Your task to perform on an android device: change alarm snooze length Image 0: 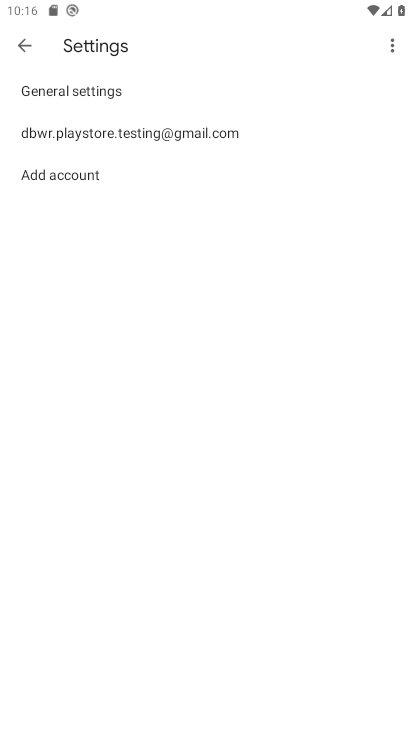
Step 0: drag from (206, 666) to (205, 495)
Your task to perform on an android device: change alarm snooze length Image 1: 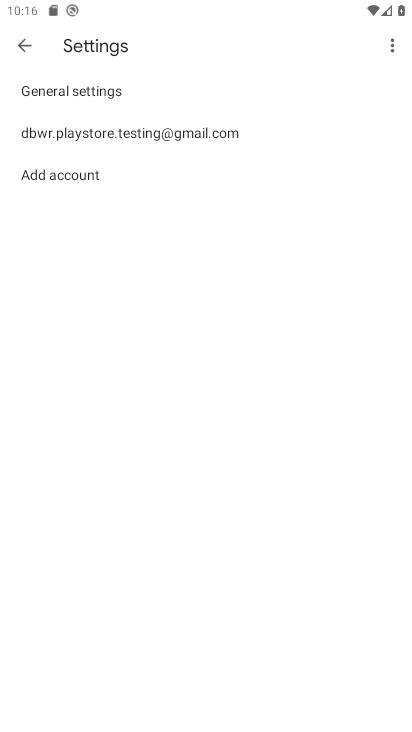
Step 1: press home button
Your task to perform on an android device: change alarm snooze length Image 2: 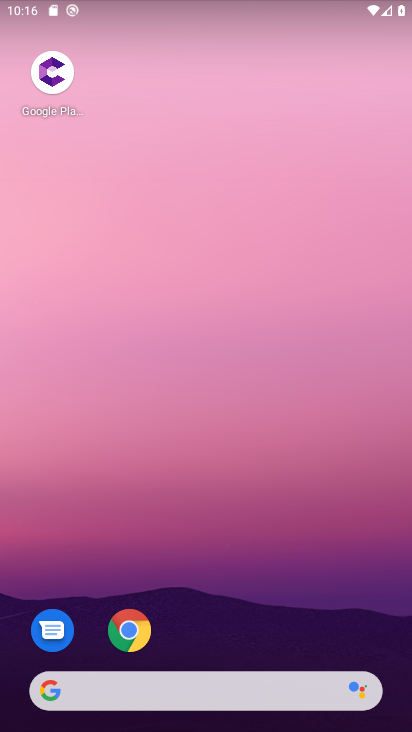
Step 2: drag from (222, 665) to (156, 57)
Your task to perform on an android device: change alarm snooze length Image 3: 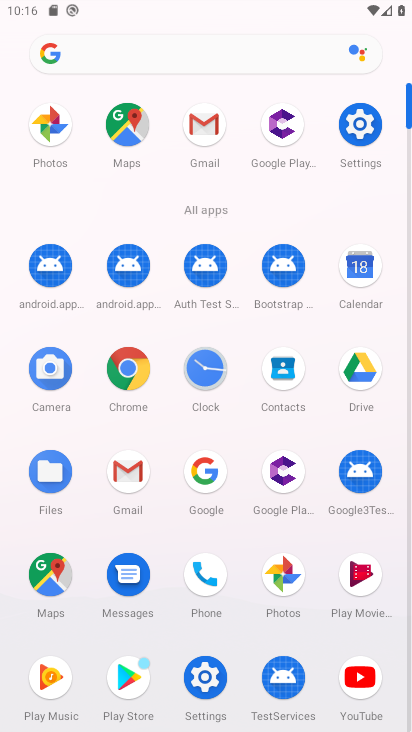
Step 3: click (192, 368)
Your task to perform on an android device: change alarm snooze length Image 4: 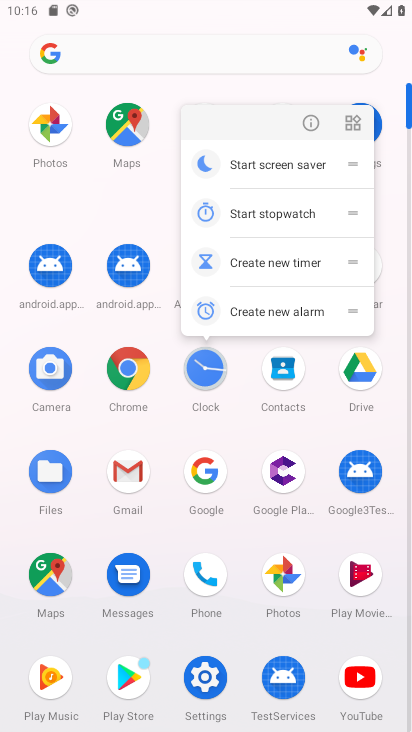
Step 4: click (216, 371)
Your task to perform on an android device: change alarm snooze length Image 5: 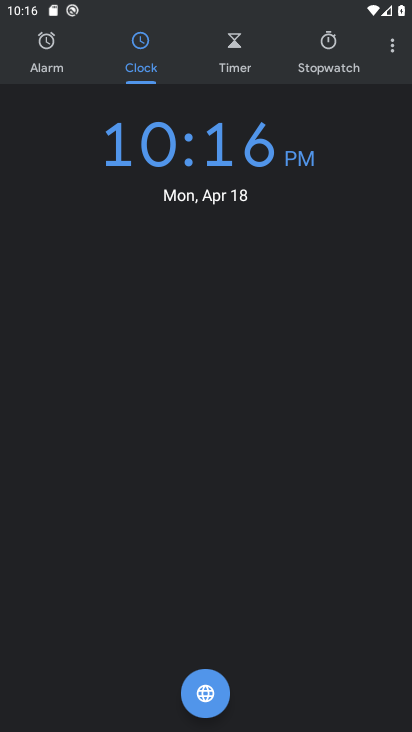
Step 5: click (390, 55)
Your task to perform on an android device: change alarm snooze length Image 6: 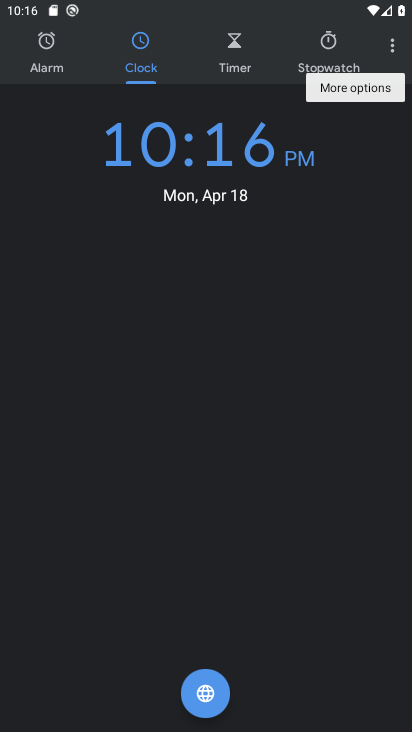
Step 6: click (391, 55)
Your task to perform on an android device: change alarm snooze length Image 7: 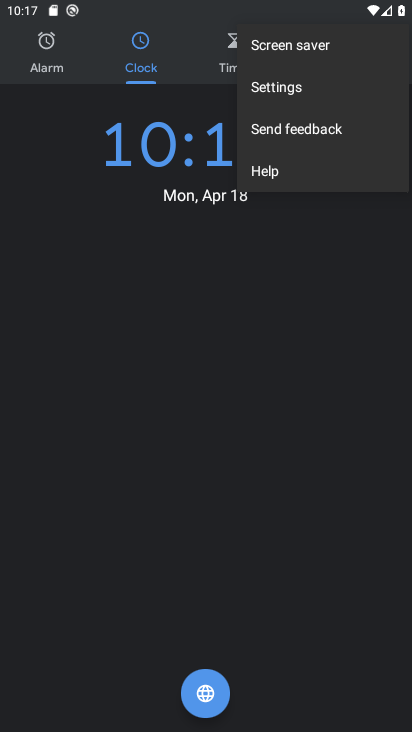
Step 7: click (288, 80)
Your task to perform on an android device: change alarm snooze length Image 8: 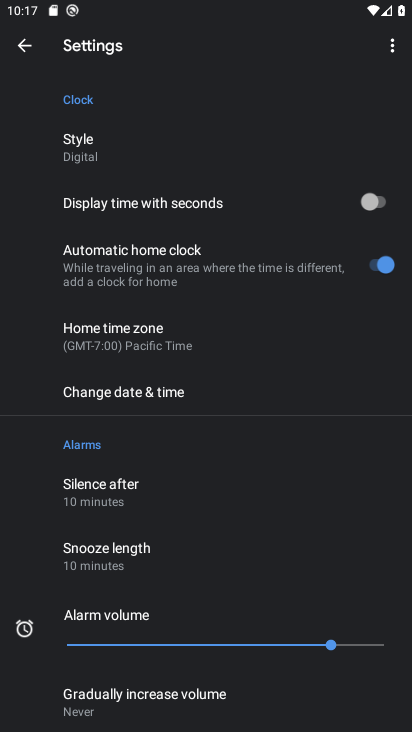
Step 8: click (89, 546)
Your task to perform on an android device: change alarm snooze length Image 9: 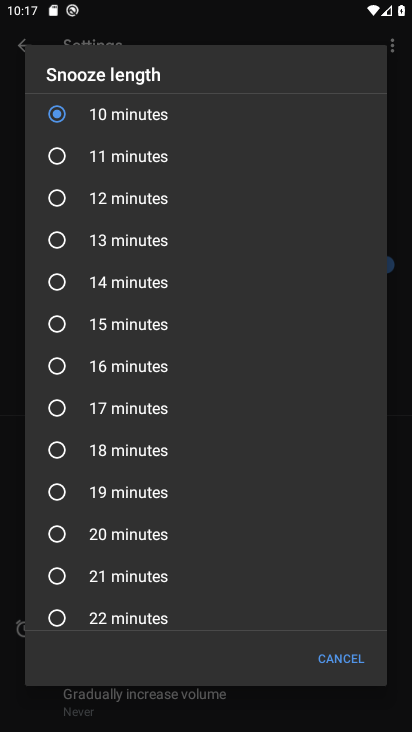
Step 9: click (105, 149)
Your task to perform on an android device: change alarm snooze length Image 10: 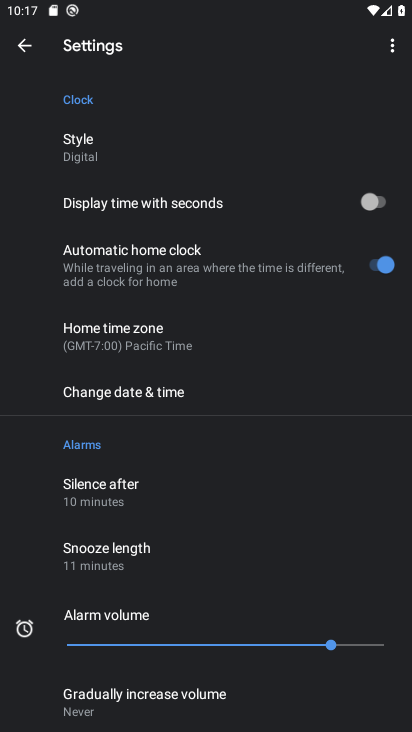
Step 10: task complete